Your task to perform on an android device: turn off priority inbox in the gmail app Image 0: 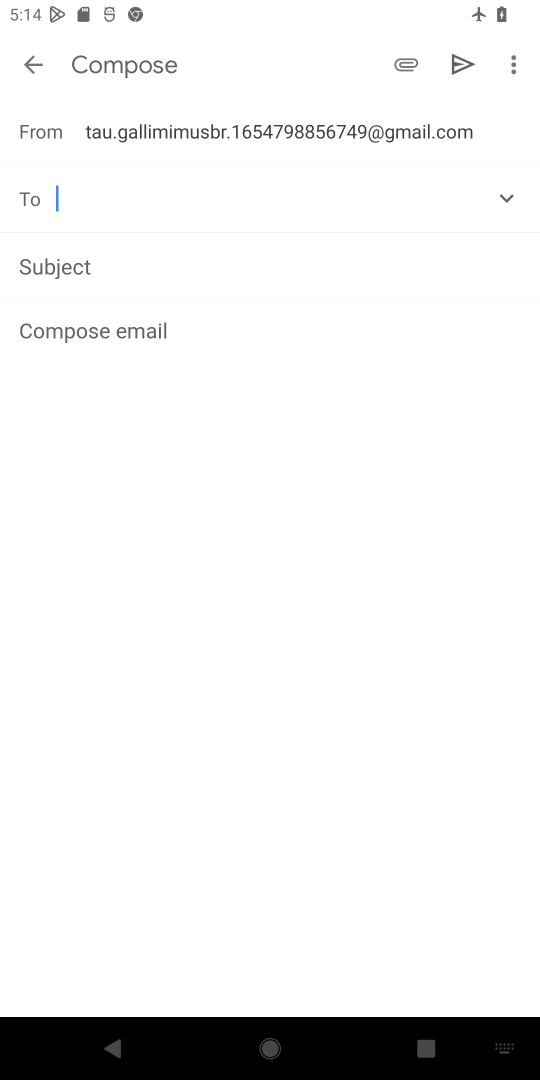
Step 0: click (34, 57)
Your task to perform on an android device: turn off priority inbox in the gmail app Image 1: 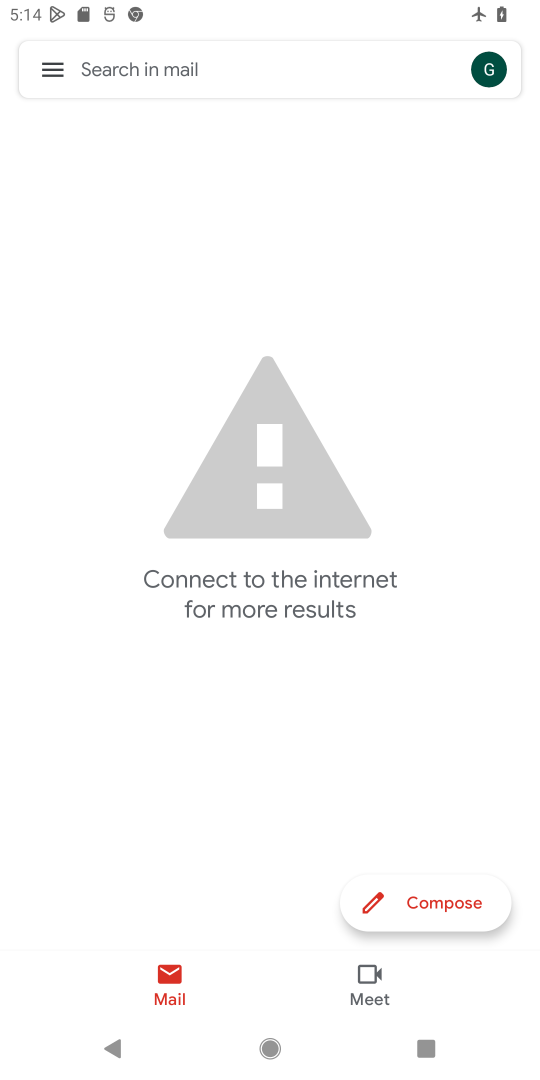
Step 1: click (55, 54)
Your task to perform on an android device: turn off priority inbox in the gmail app Image 2: 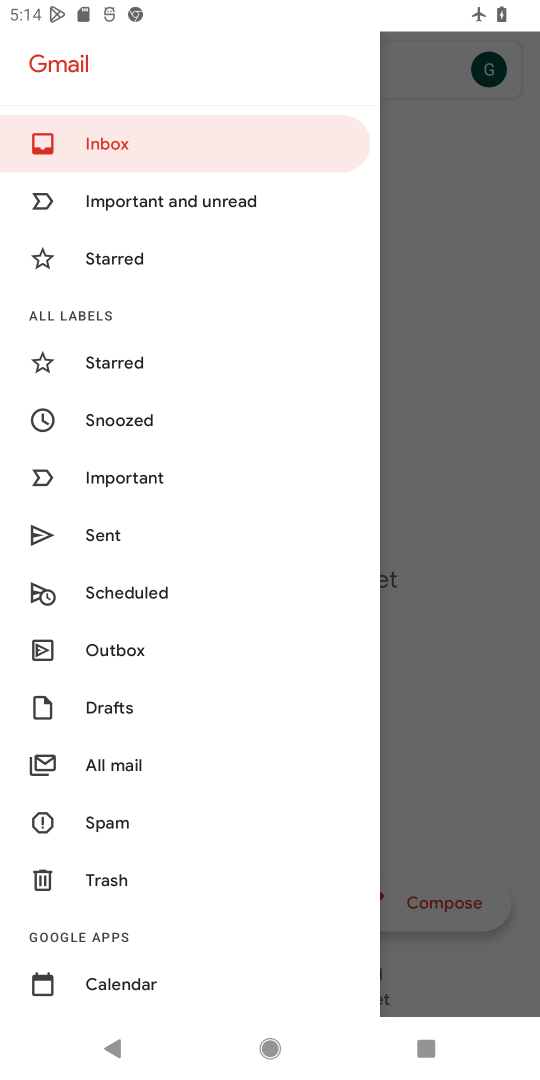
Step 2: drag from (117, 927) to (265, 375)
Your task to perform on an android device: turn off priority inbox in the gmail app Image 3: 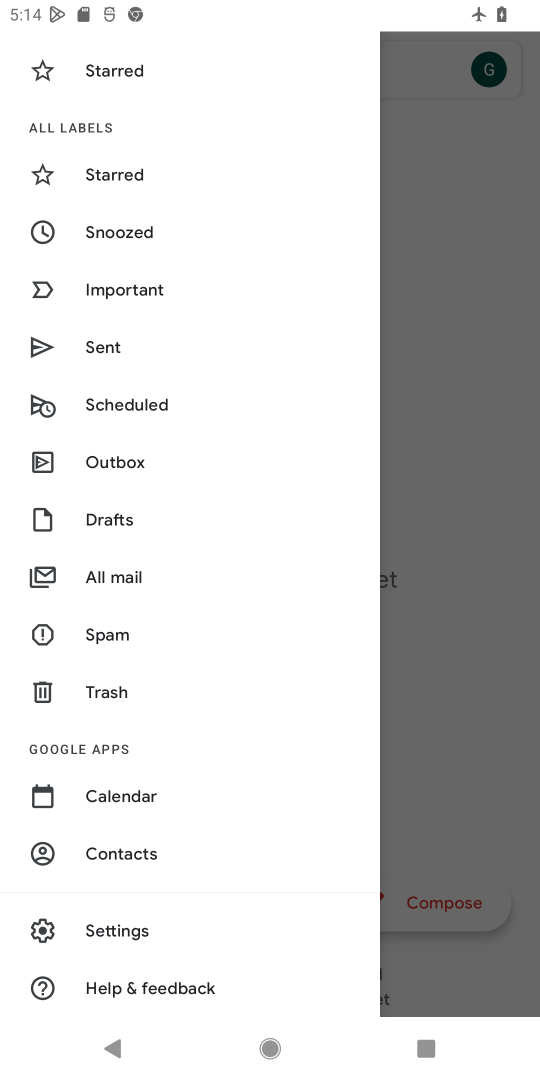
Step 3: click (153, 930)
Your task to perform on an android device: turn off priority inbox in the gmail app Image 4: 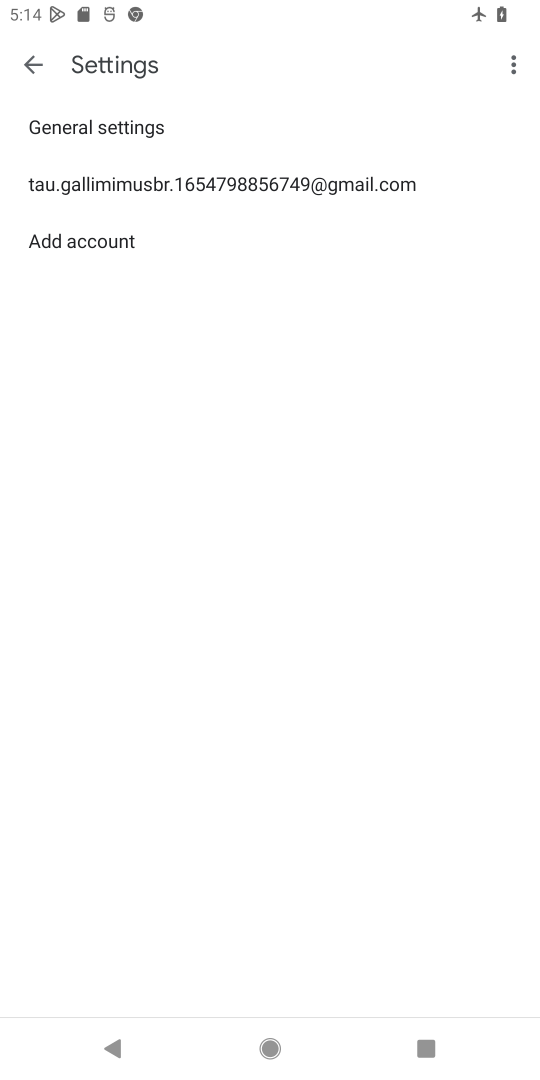
Step 4: click (183, 195)
Your task to perform on an android device: turn off priority inbox in the gmail app Image 5: 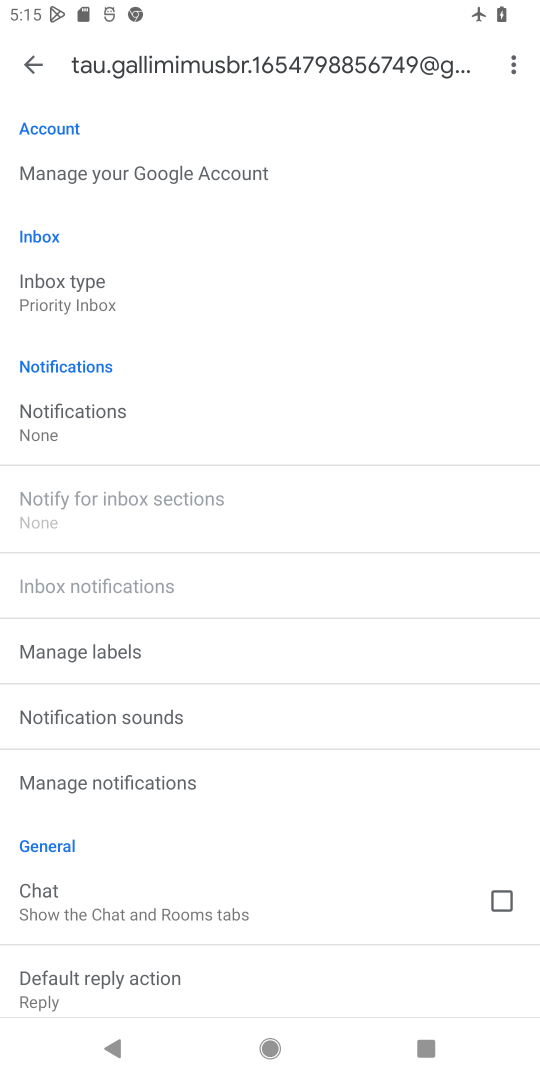
Step 5: click (114, 311)
Your task to perform on an android device: turn off priority inbox in the gmail app Image 6: 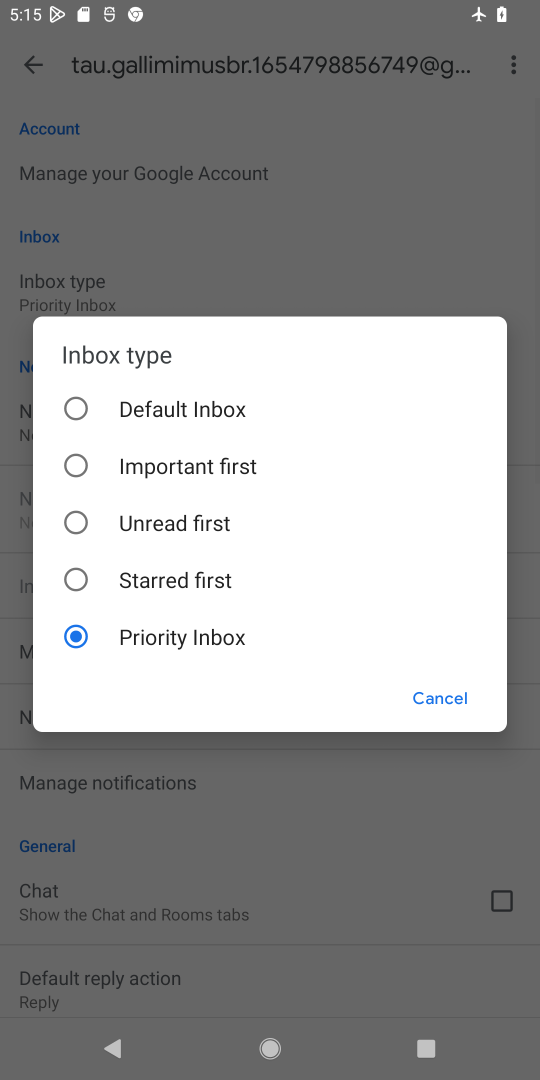
Step 6: click (148, 392)
Your task to perform on an android device: turn off priority inbox in the gmail app Image 7: 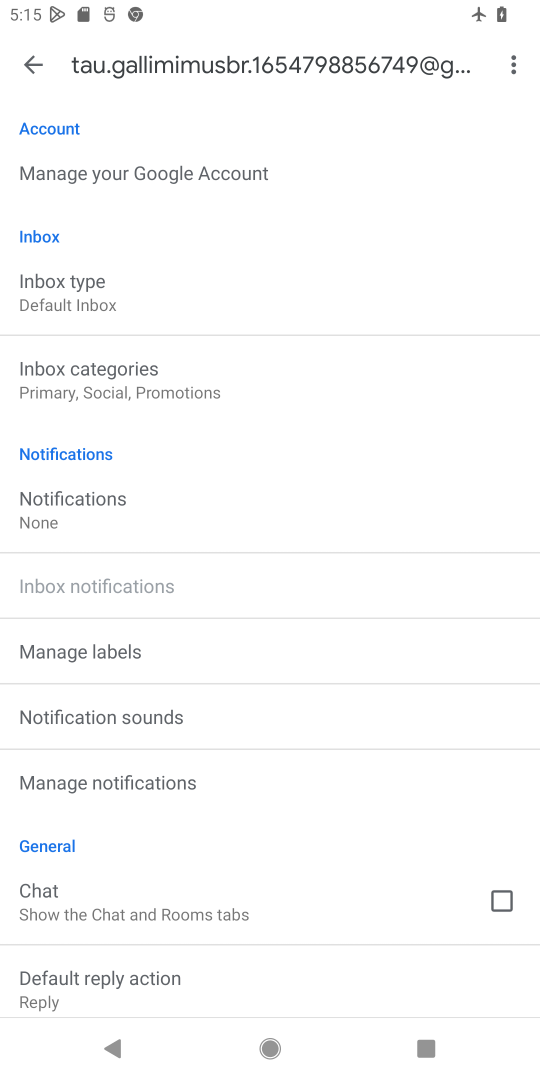
Step 7: task complete